Your task to perform on an android device: What's the weather? Image 0: 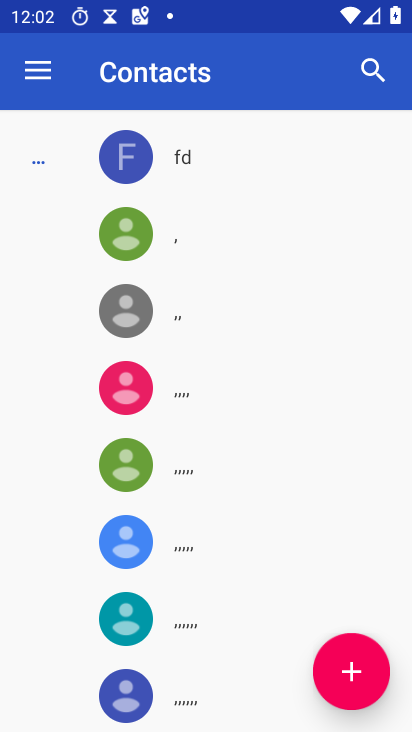
Step 0: press home button
Your task to perform on an android device: What's the weather? Image 1: 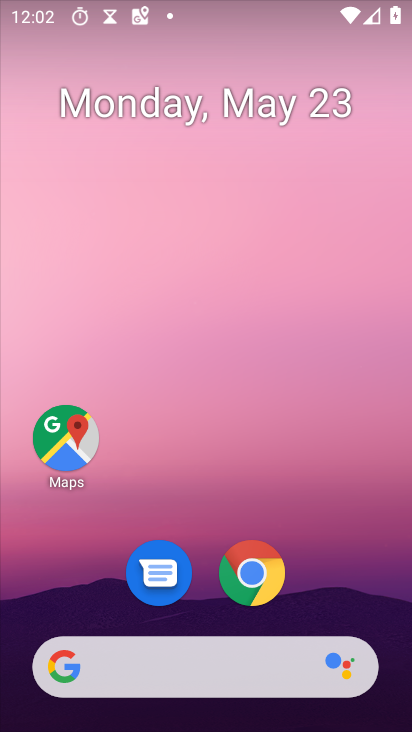
Step 1: click (71, 670)
Your task to perform on an android device: What's the weather? Image 2: 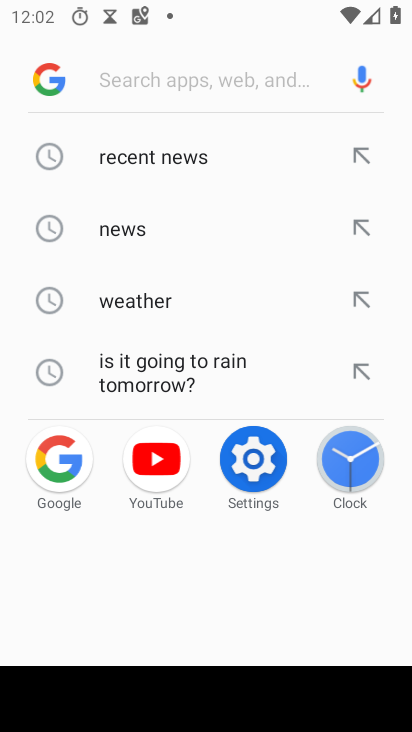
Step 2: click (157, 301)
Your task to perform on an android device: What's the weather? Image 3: 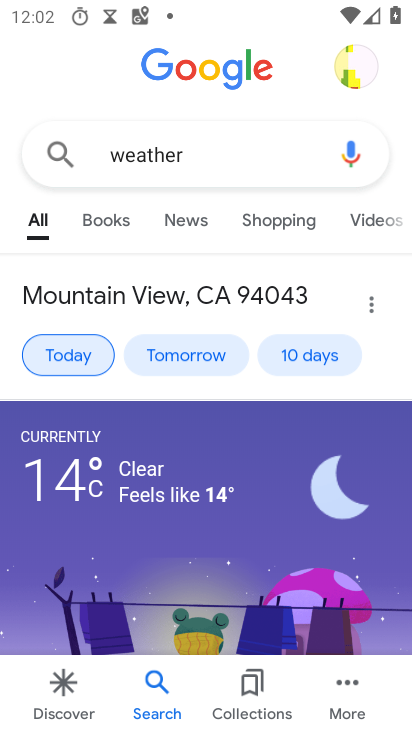
Step 3: task complete